Your task to perform on an android device: Search for the best custom wallets on Etsy. Image 0: 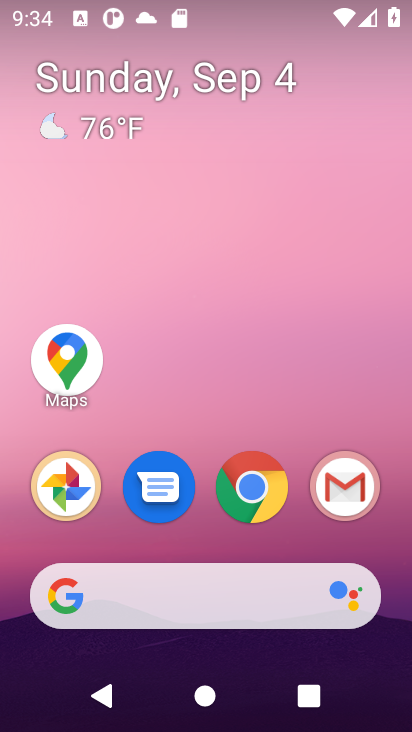
Step 0: click (173, 610)
Your task to perform on an android device: Search for the best custom wallets on Etsy. Image 1: 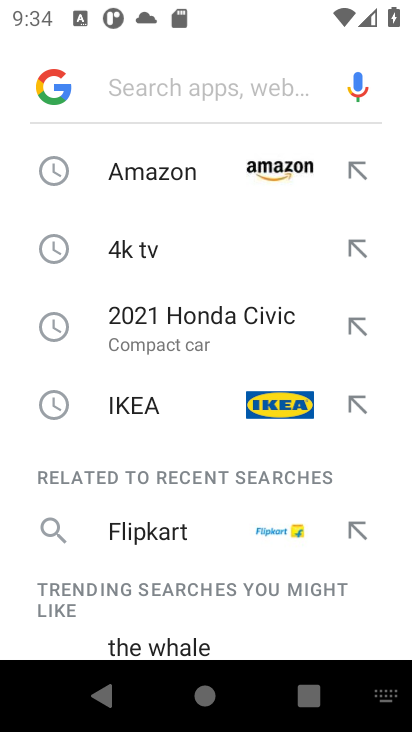
Step 1: type "etsy"
Your task to perform on an android device: Search for the best custom wallets on Etsy. Image 2: 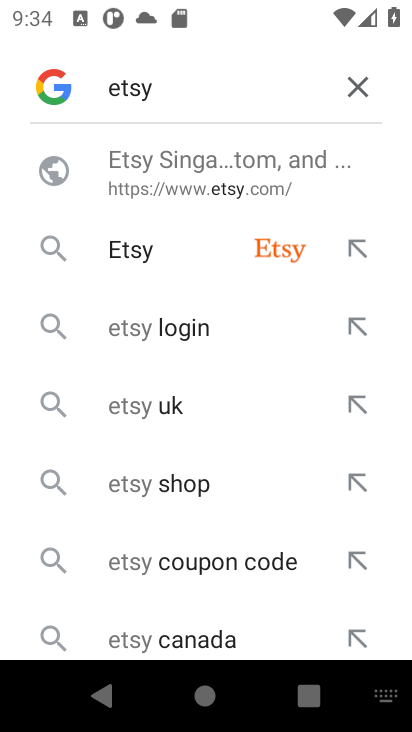
Step 2: click (261, 260)
Your task to perform on an android device: Search for the best custom wallets on Etsy. Image 3: 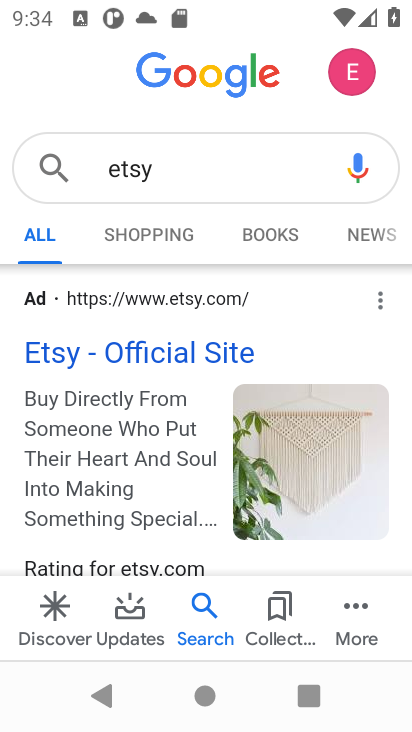
Step 3: click (130, 363)
Your task to perform on an android device: Search for the best custom wallets on Etsy. Image 4: 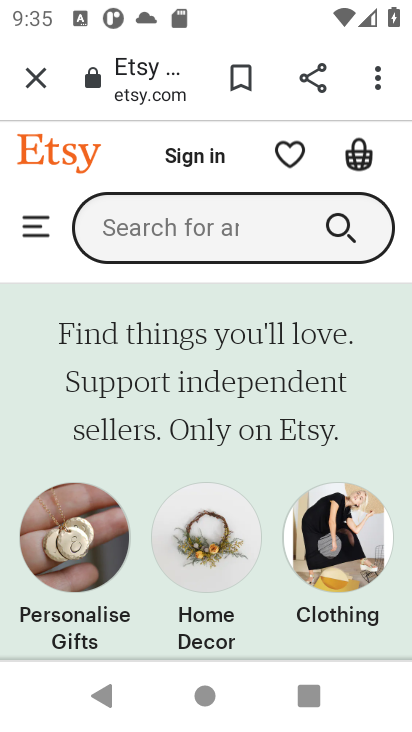
Step 4: click (238, 229)
Your task to perform on an android device: Search for the best custom wallets on Etsy. Image 5: 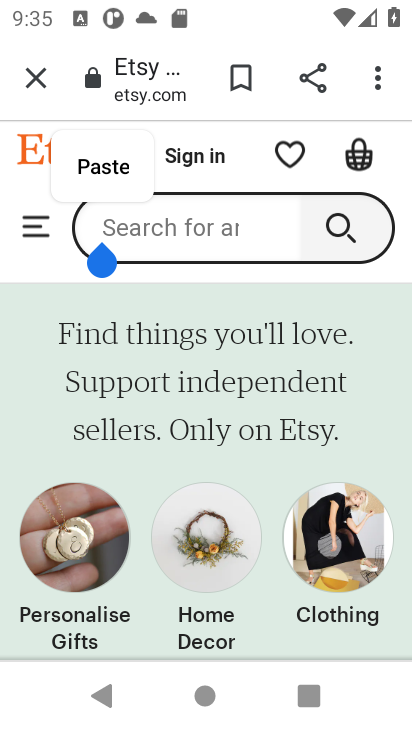
Step 5: type " best custom wallets"
Your task to perform on an android device: Search for the best custom wallets on Etsy. Image 6: 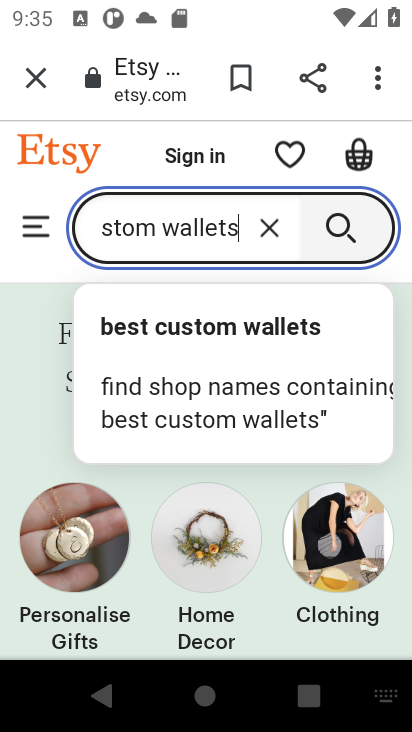
Step 6: click (345, 220)
Your task to perform on an android device: Search for the best custom wallets on Etsy. Image 7: 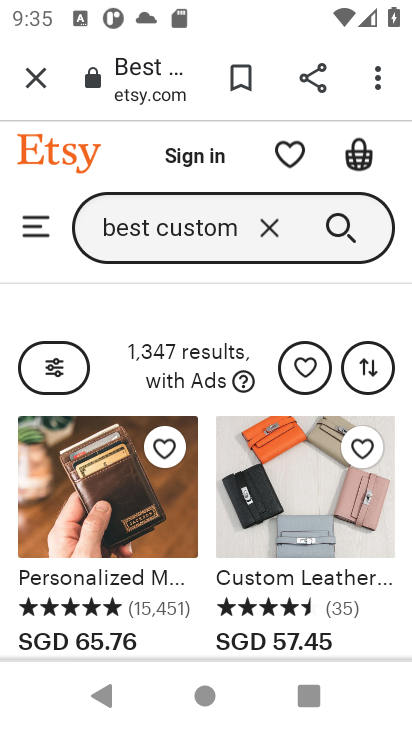
Step 7: task complete